Your task to perform on an android device: turn notification dots on Image 0: 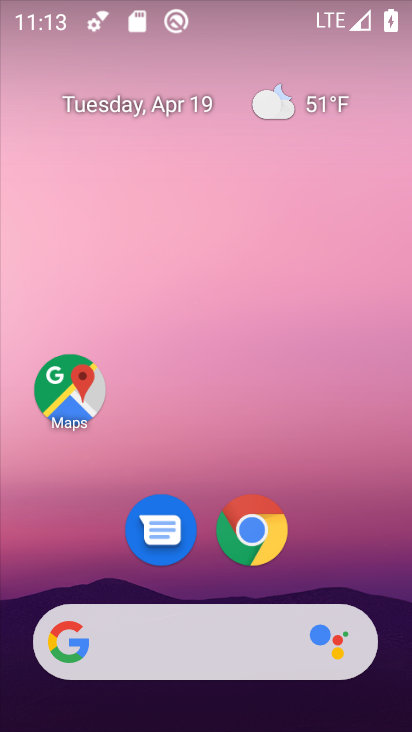
Step 0: drag from (175, 576) to (298, 40)
Your task to perform on an android device: turn notification dots on Image 1: 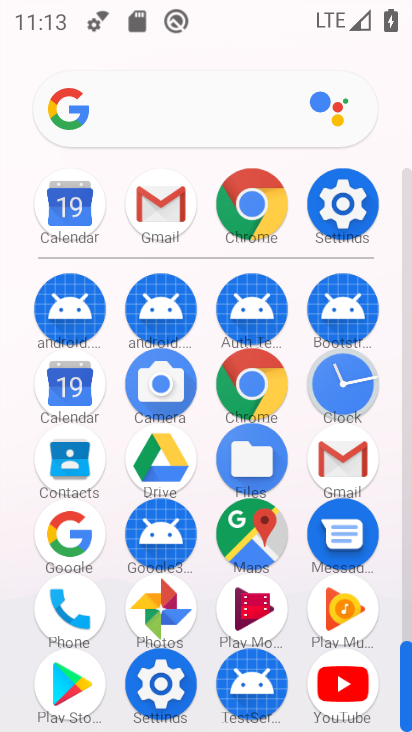
Step 1: click (338, 207)
Your task to perform on an android device: turn notification dots on Image 2: 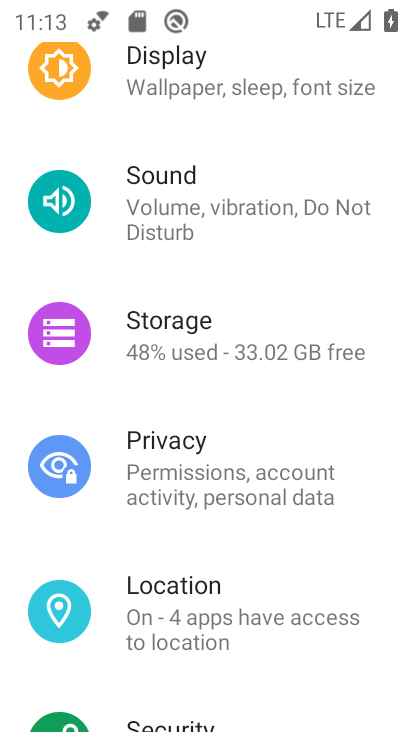
Step 2: drag from (289, 135) to (243, 608)
Your task to perform on an android device: turn notification dots on Image 3: 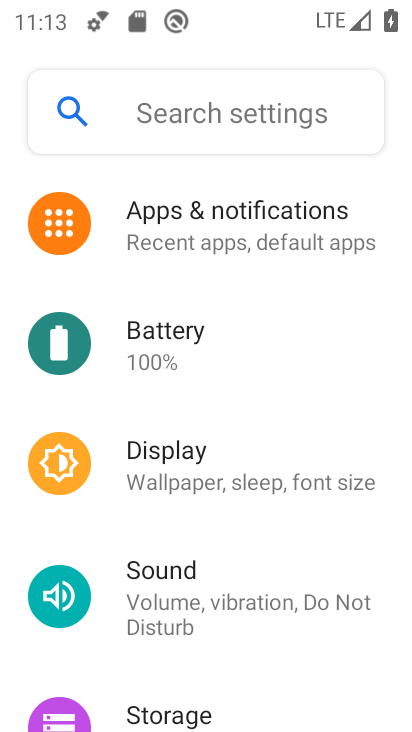
Step 3: click (261, 225)
Your task to perform on an android device: turn notification dots on Image 4: 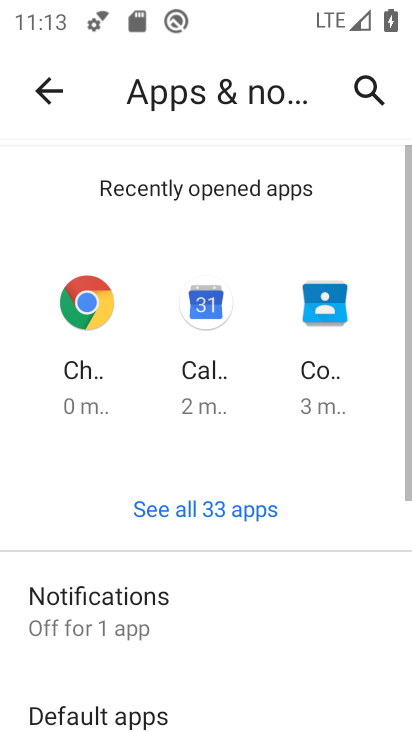
Step 4: click (108, 610)
Your task to perform on an android device: turn notification dots on Image 5: 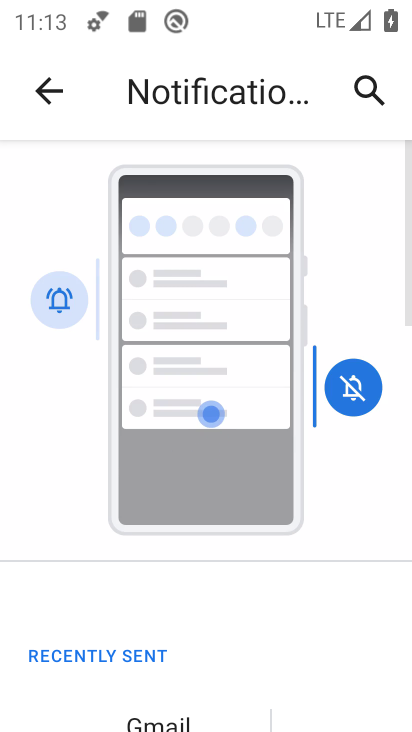
Step 5: drag from (253, 662) to (353, 229)
Your task to perform on an android device: turn notification dots on Image 6: 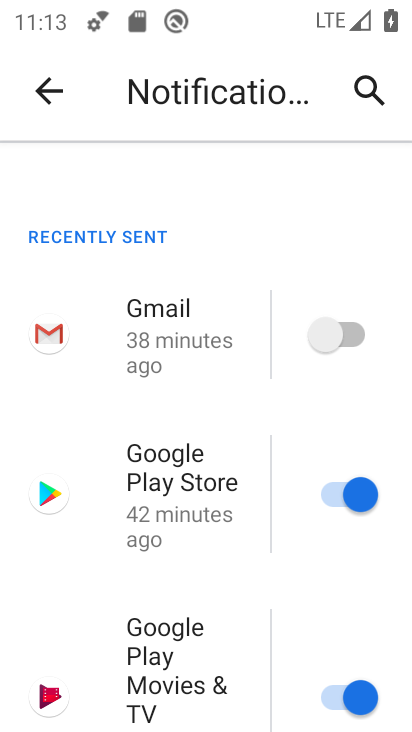
Step 6: drag from (225, 659) to (354, 138)
Your task to perform on an android device: turn notification dots on Image 7: 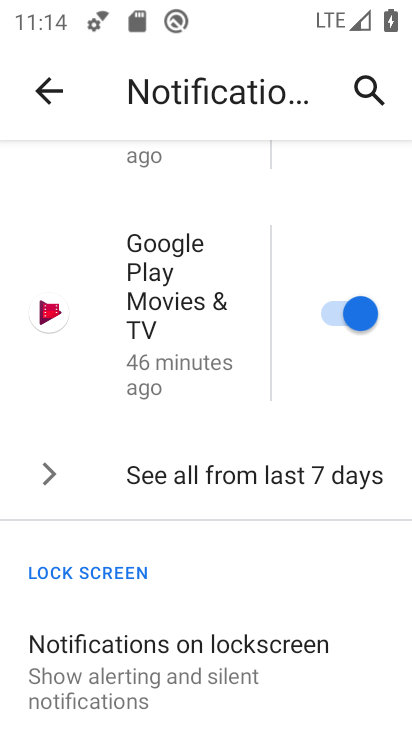
Step 7: drag from (205, 668) to (386, 55)
Your task to perform on an android device: turn notification dots on Image 8: 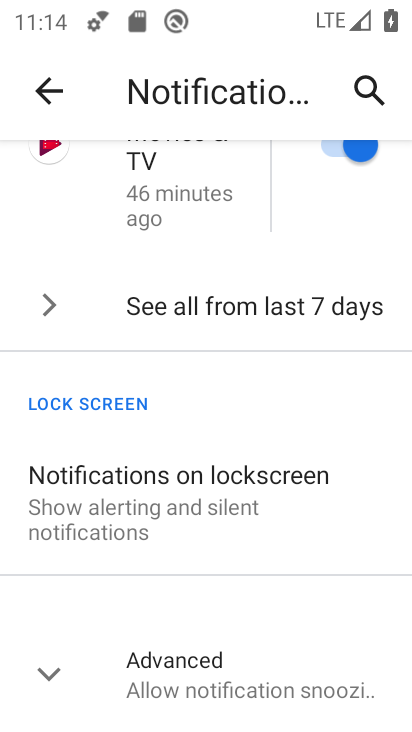
Step 8: click (160, 662)
Your task to perform on an android device: turn notification dots on Image 9: 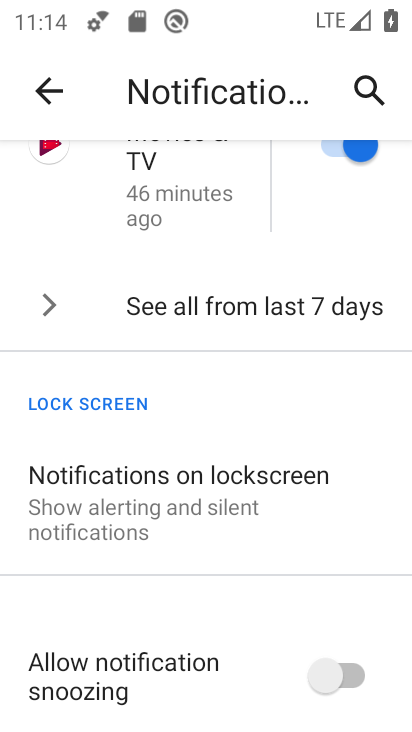
Step 9: drag from (182, 620) to (307, 133)
Your task to perform on an android device: turn notification dots on Image 10: 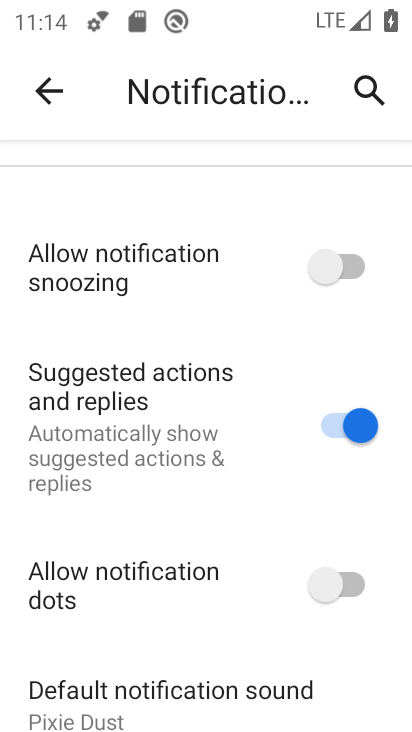
Step 10: click (347, 585)
Your task to perform on an android device: turn notification dots on Image 11: 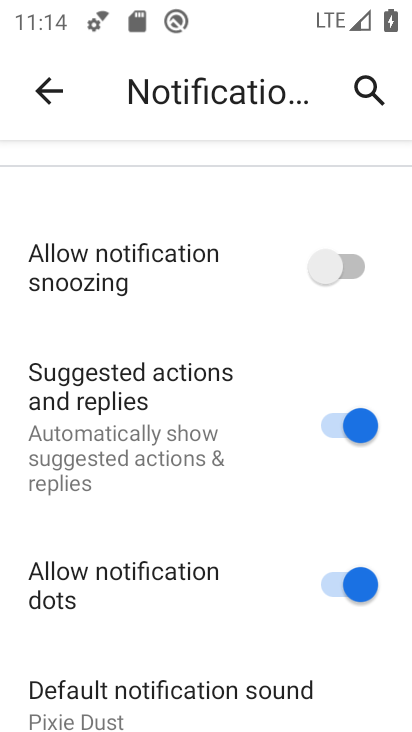
Step 11: task complete